Your task to perform on an android device: Add "bose quietcomfort 35" to the cart on costco.com, then select checkout. Image 0: 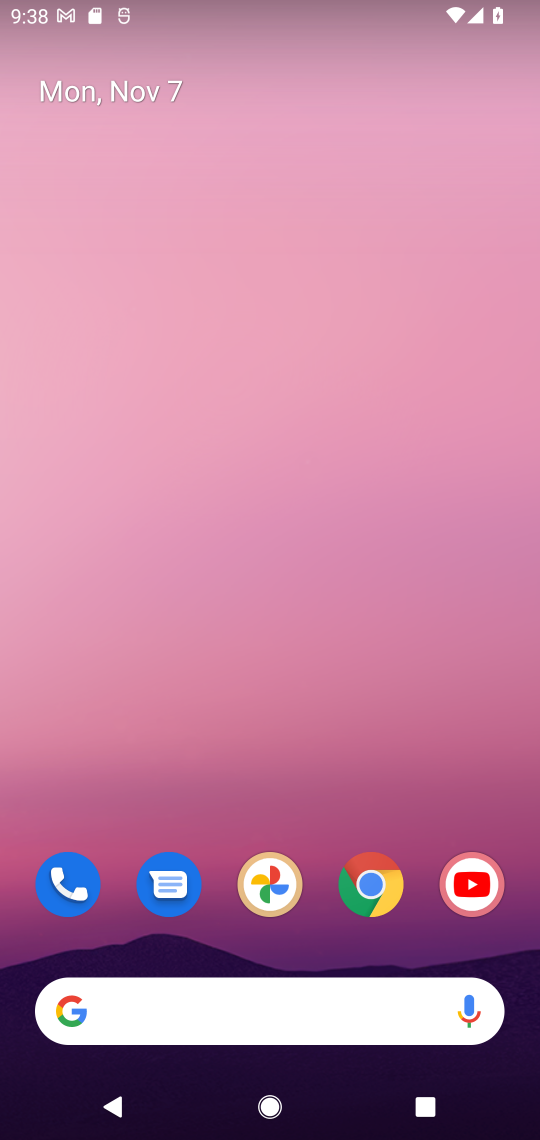
Step 0: click (382, 886)
Your task to perform on an android device: Add "bose quietcomfort 35" to the cart on costco.com, then select checkout. Image 1: 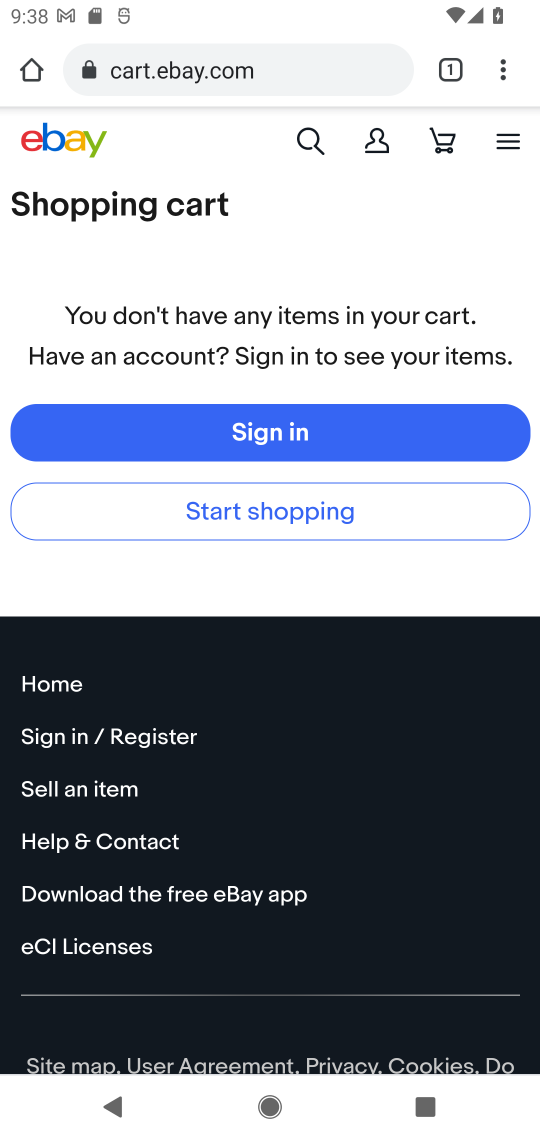
Step 1: click (27, 67)
Your task to perform on an android device: Add "bose quietcomfort 35" to the cart on costco.com, then select checkout. Image 2: 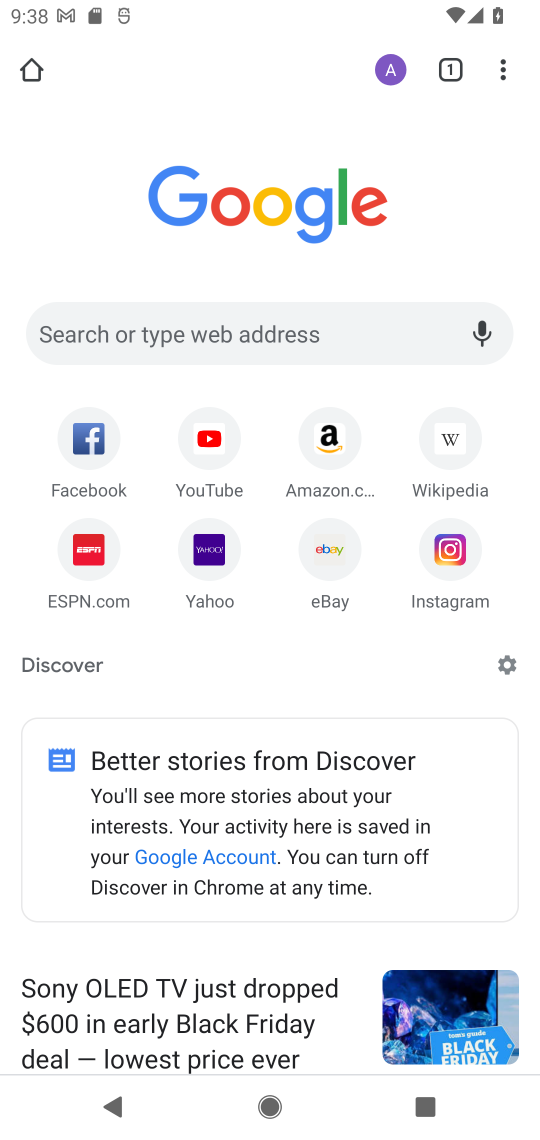
Step 2: click (300, 328)
Your task to perform on an android device: Add "bose quietcomfort 35" to the cart on costco.com, then select checkout. Image 3: 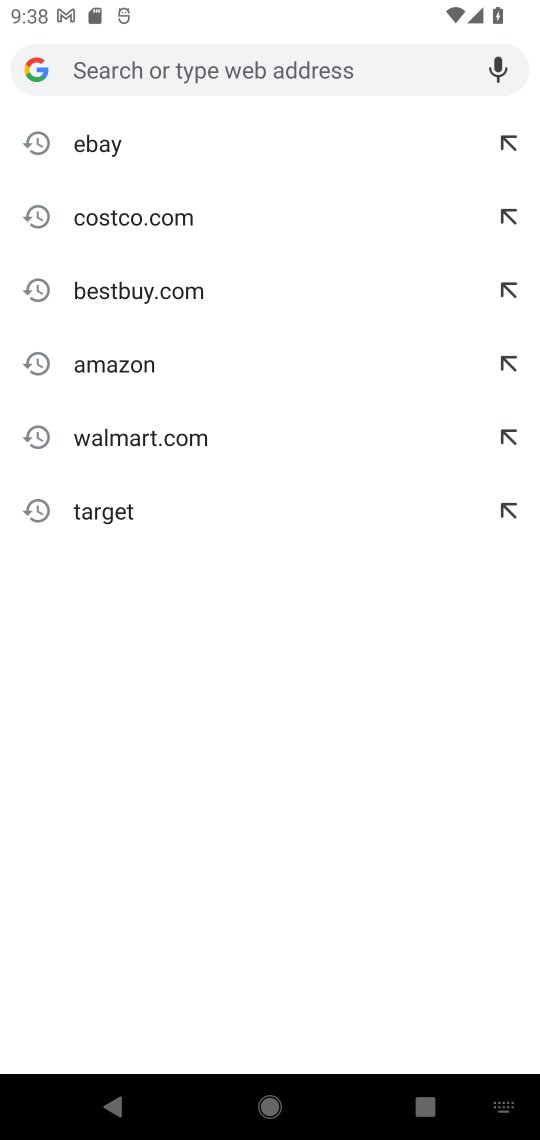
Step 3: click (159, 229)
Your task to perform on an android device: Add "bose quietcomfort 35" to the cart on costco.com, then select checkout. Image 4: 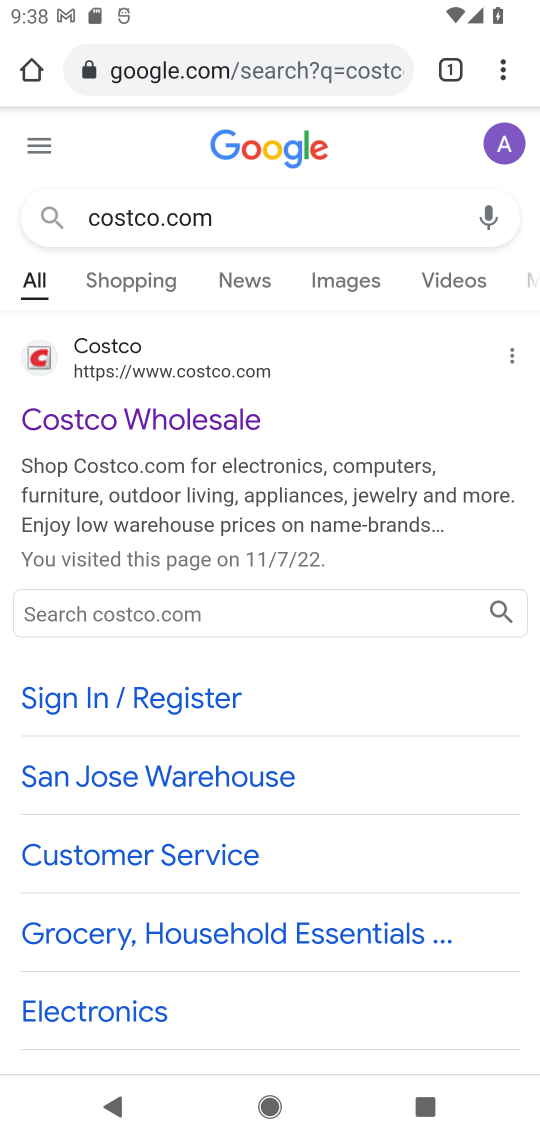
Step 4: click (179, 370)
Your task to perform on an android device: Add "bose quietcomfort 35" to the cart on costco.com, then select checkout. Image 5: 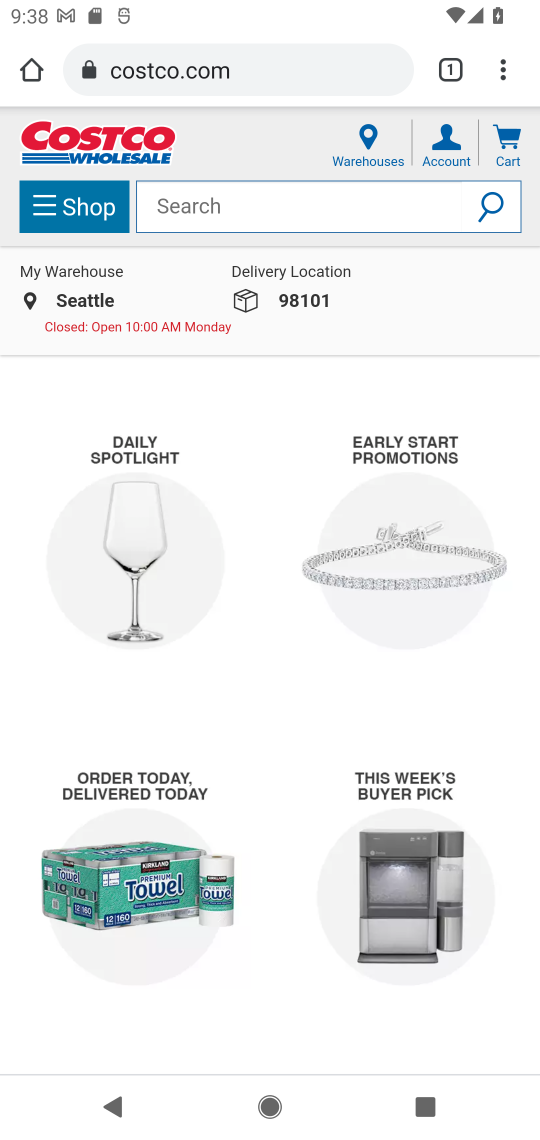
Step 5: click (330, 213)
Your task to perform on an android device: Add "bose quietcomfort 35" to the cart on costco.com, then select checkout. Image 6: 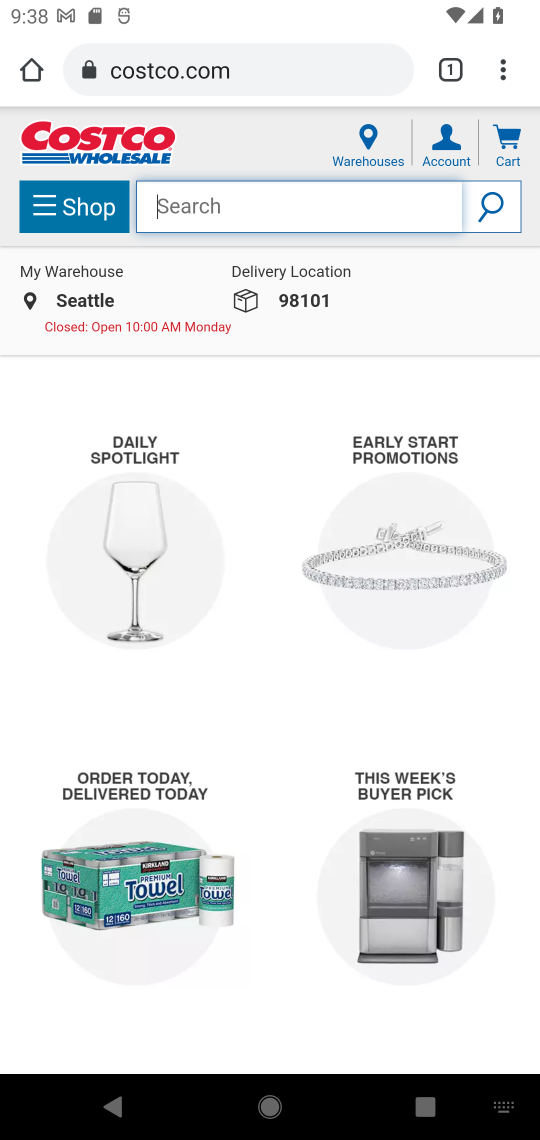
Step 6: type "bose quietcomfort 35"
Your task to perform on an android device: Add "bose quietcomfort 35" to the cart on costco.com, then select checkout. Image 7: 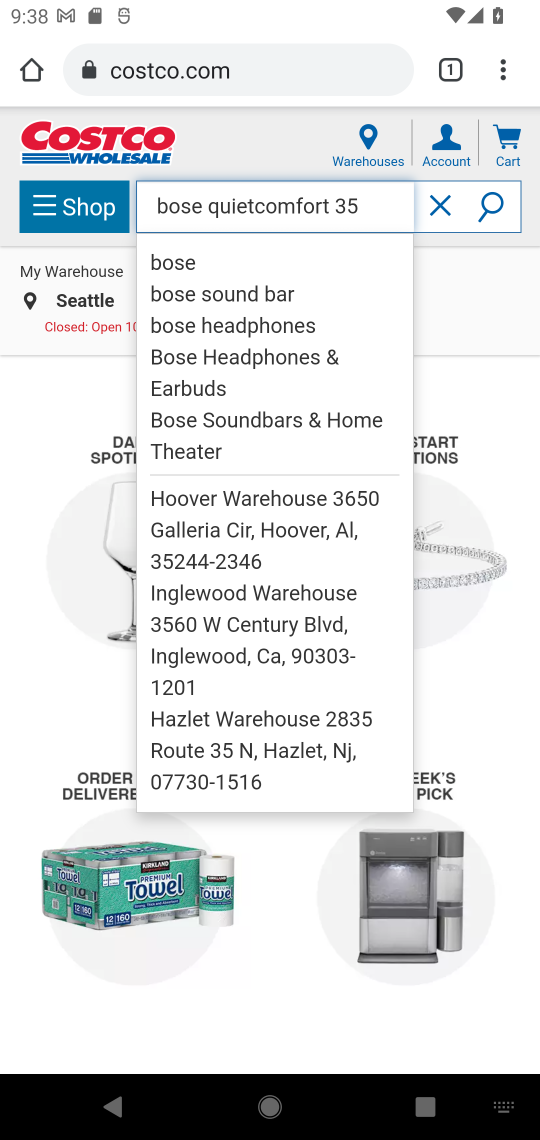
Step 7: click (448, 320)
Your task to perform on an android device: Add "bose quietcomfort 35" to the cart on costco.com, then select checkout. Image 8: 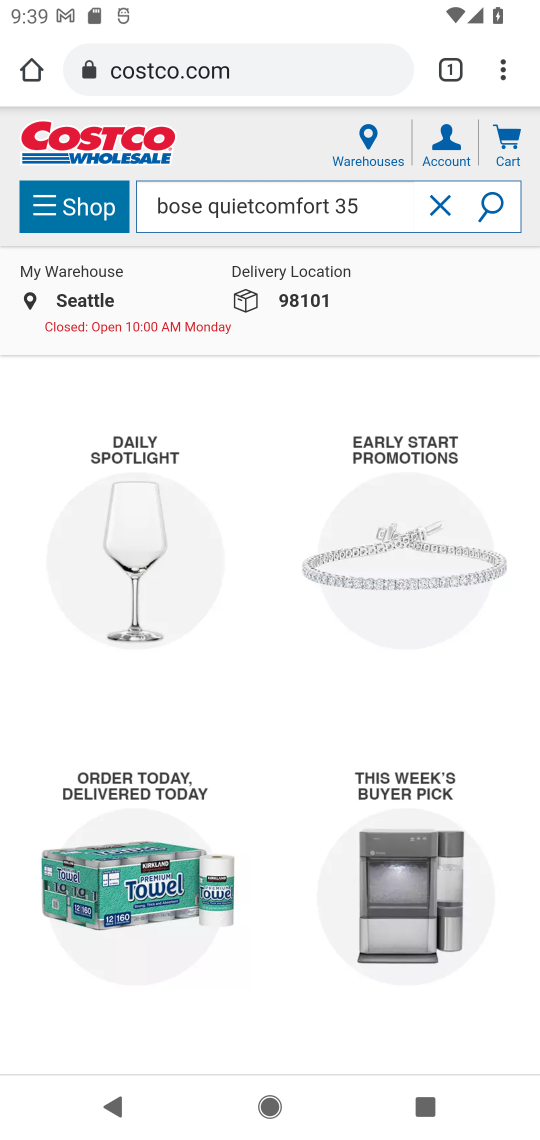
Step 8: click (499, 327)
Your task to perform on an android device: Add "bose quietcomfort 35" to the cart on costco.com, then select checkout. Image 9: 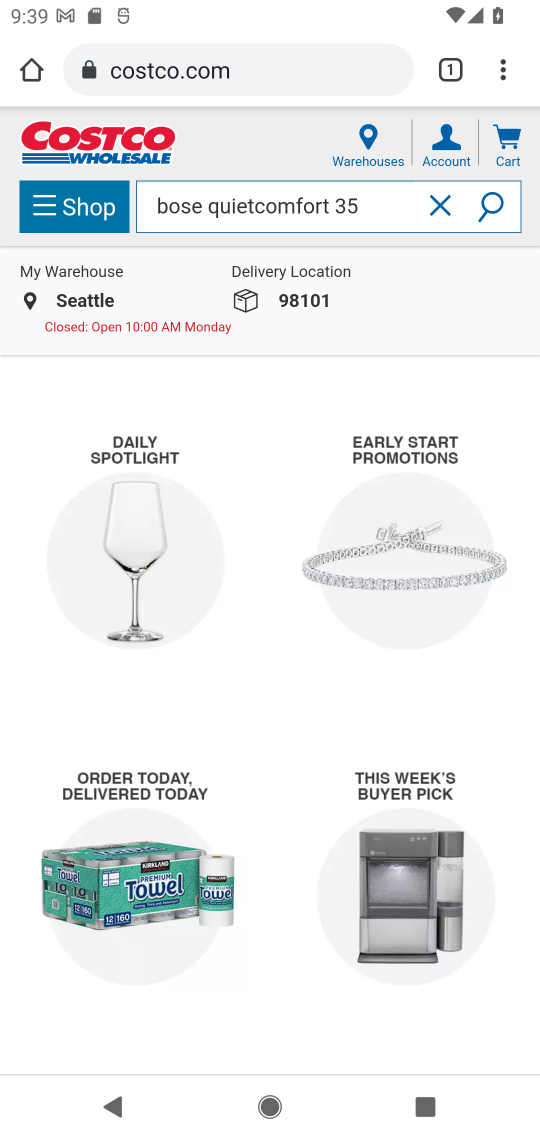
Step 9: click (34, 67)
Your task to perform on an android device: Add "bose quietcomfort 35" to the cart on costco.com, then select checkout. Image 10: 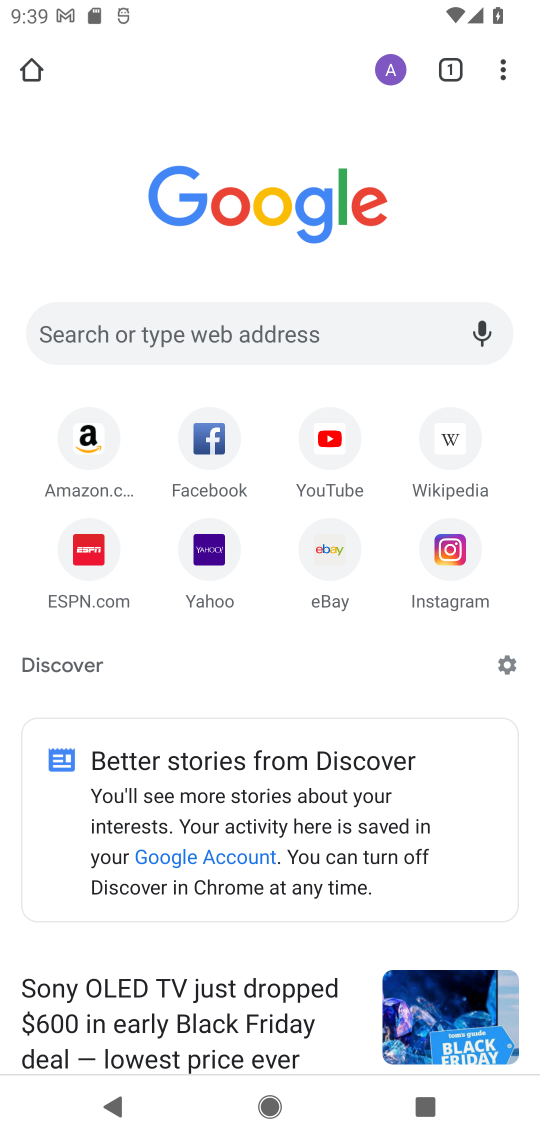
Step 10: task complete